Your task to perform on an android device: check battery use Image 0: 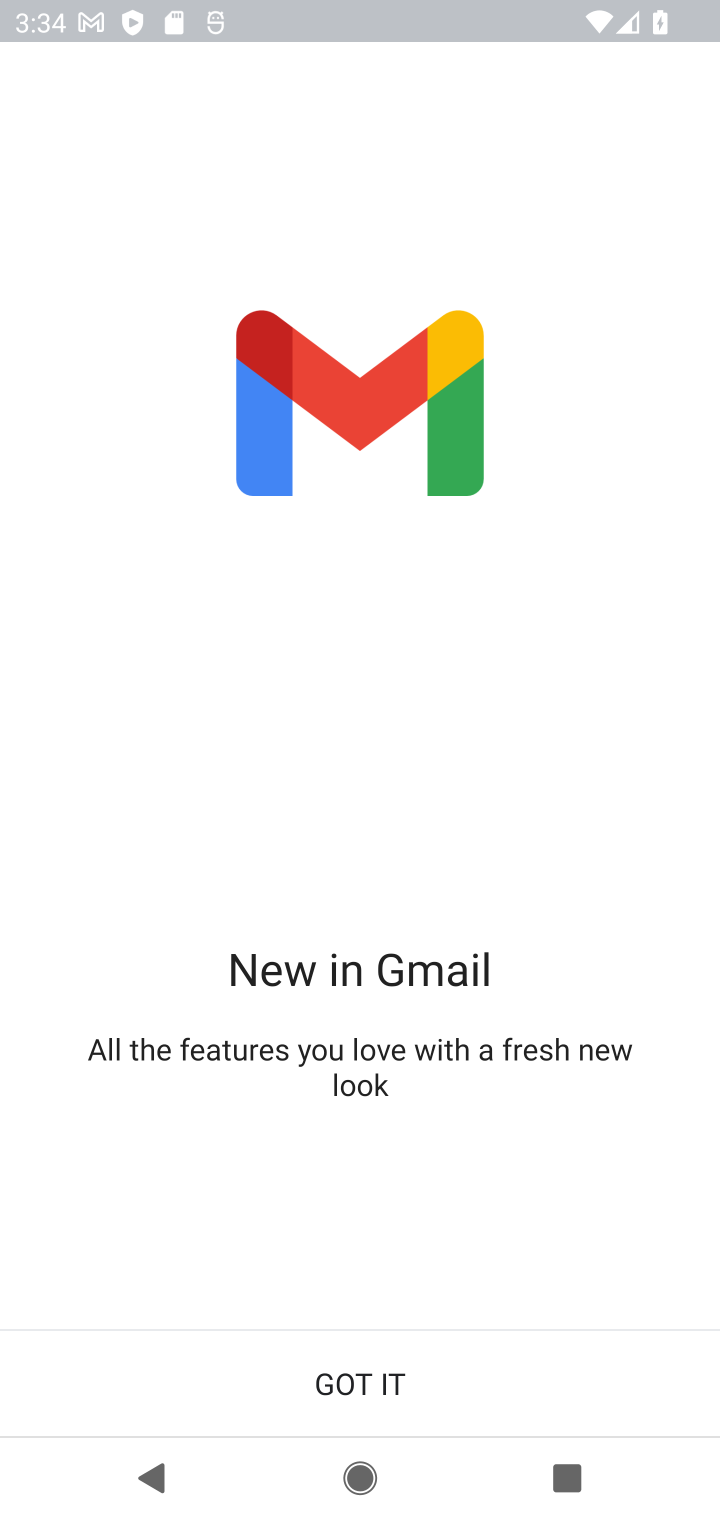
Step 0: press home button
Your task to perform on an android device: check battery use Image 1: 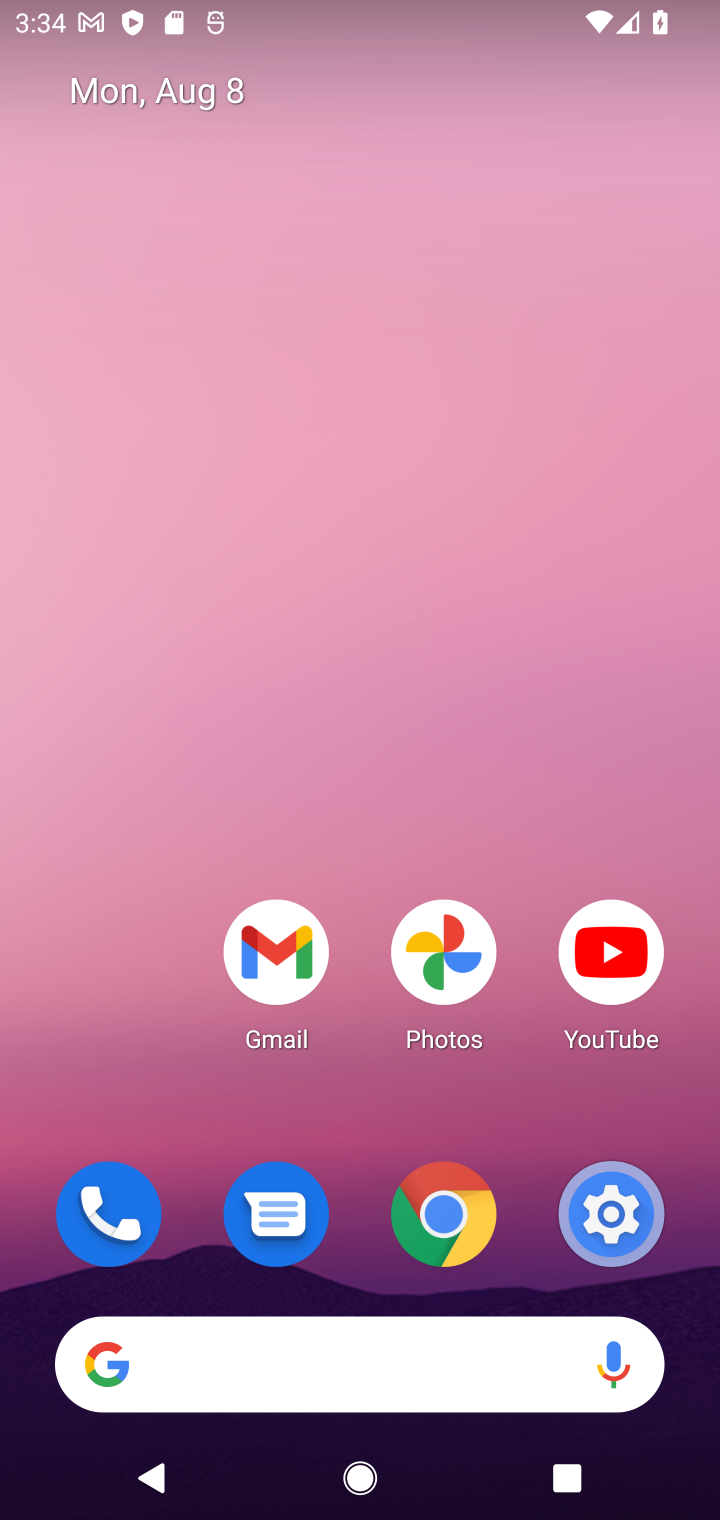
Step 1: drag from (344, 1164) to (337, 40)
Your task to perform on an android device: check battery use Image 2: 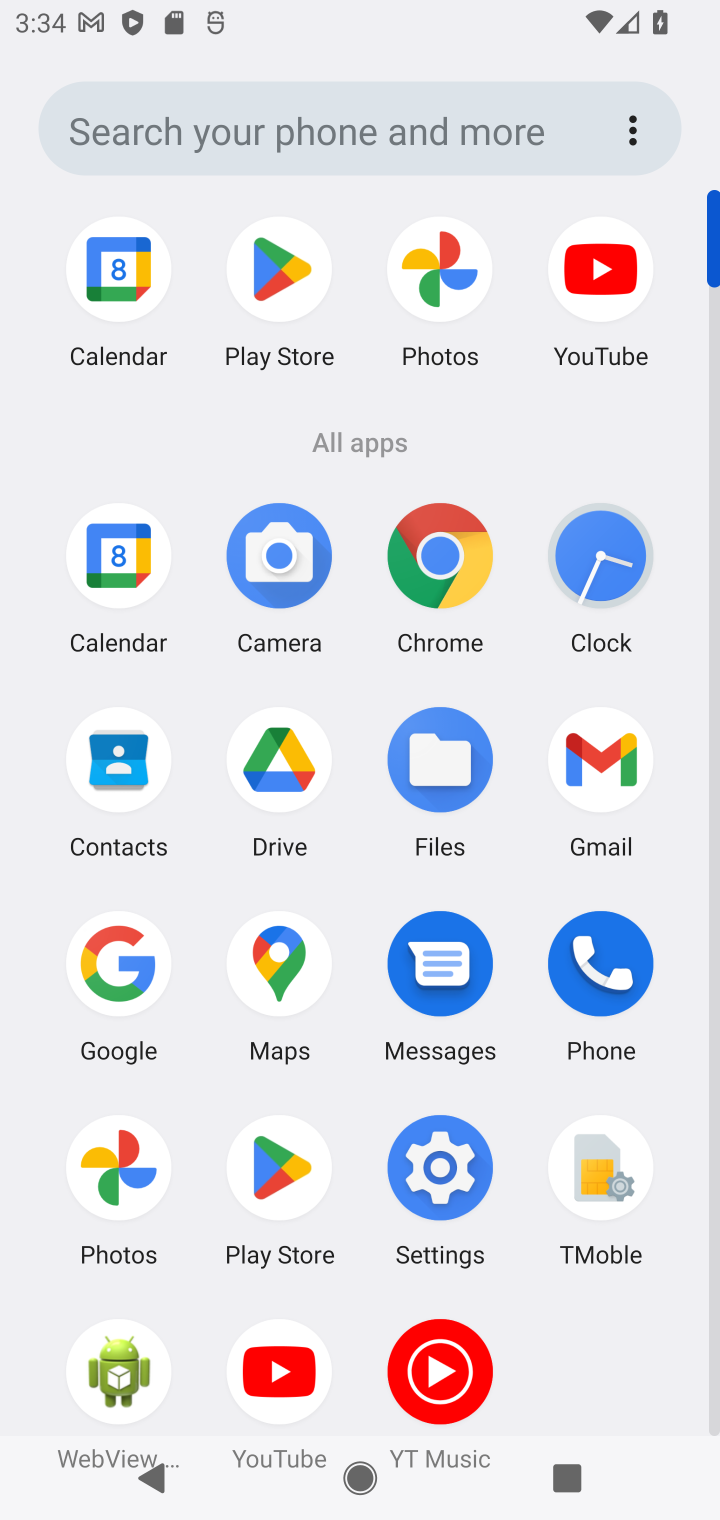
Step 2: click (459, 1161)
Your task to perform on an android device: check battery use Image 3: 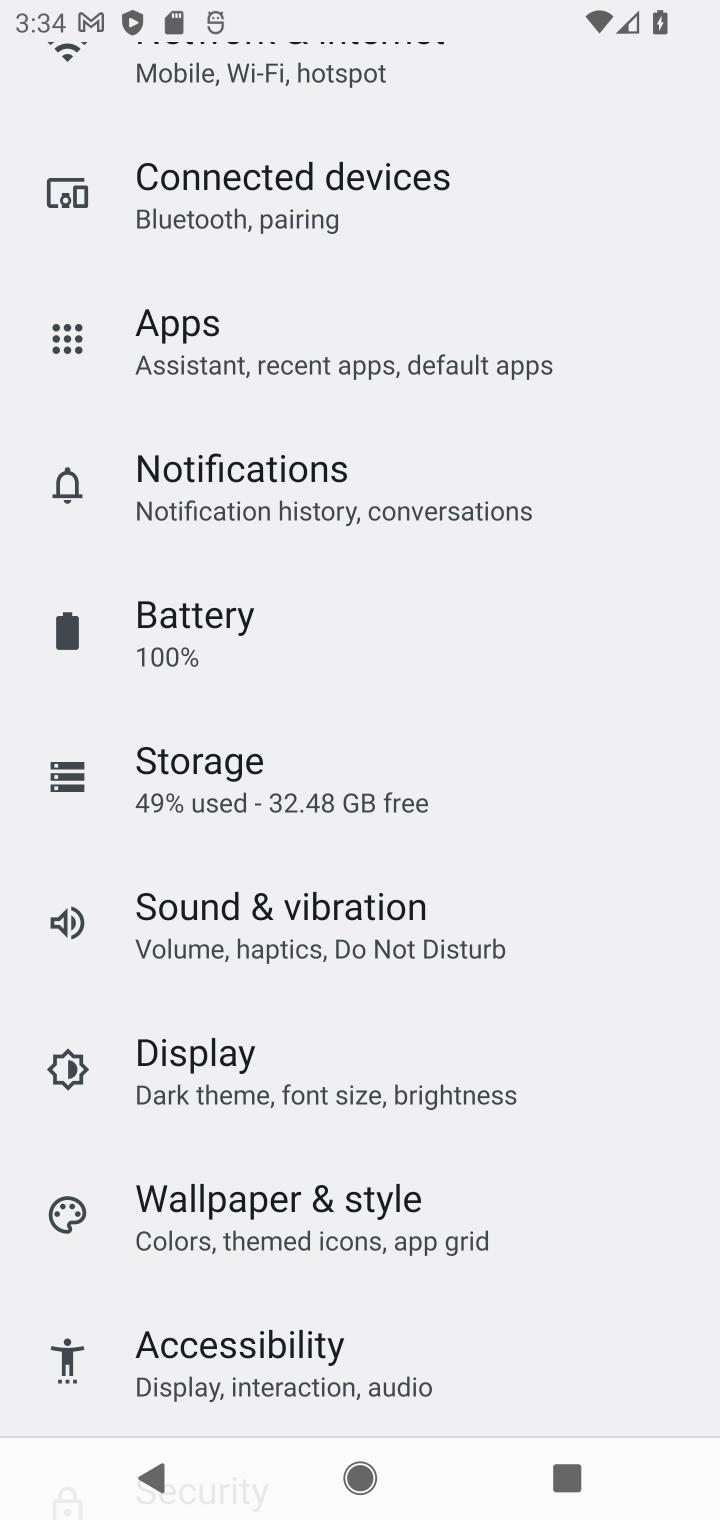
Step 3: click (151, 631)
Your task to perform on an android device: check battery use Image 4: 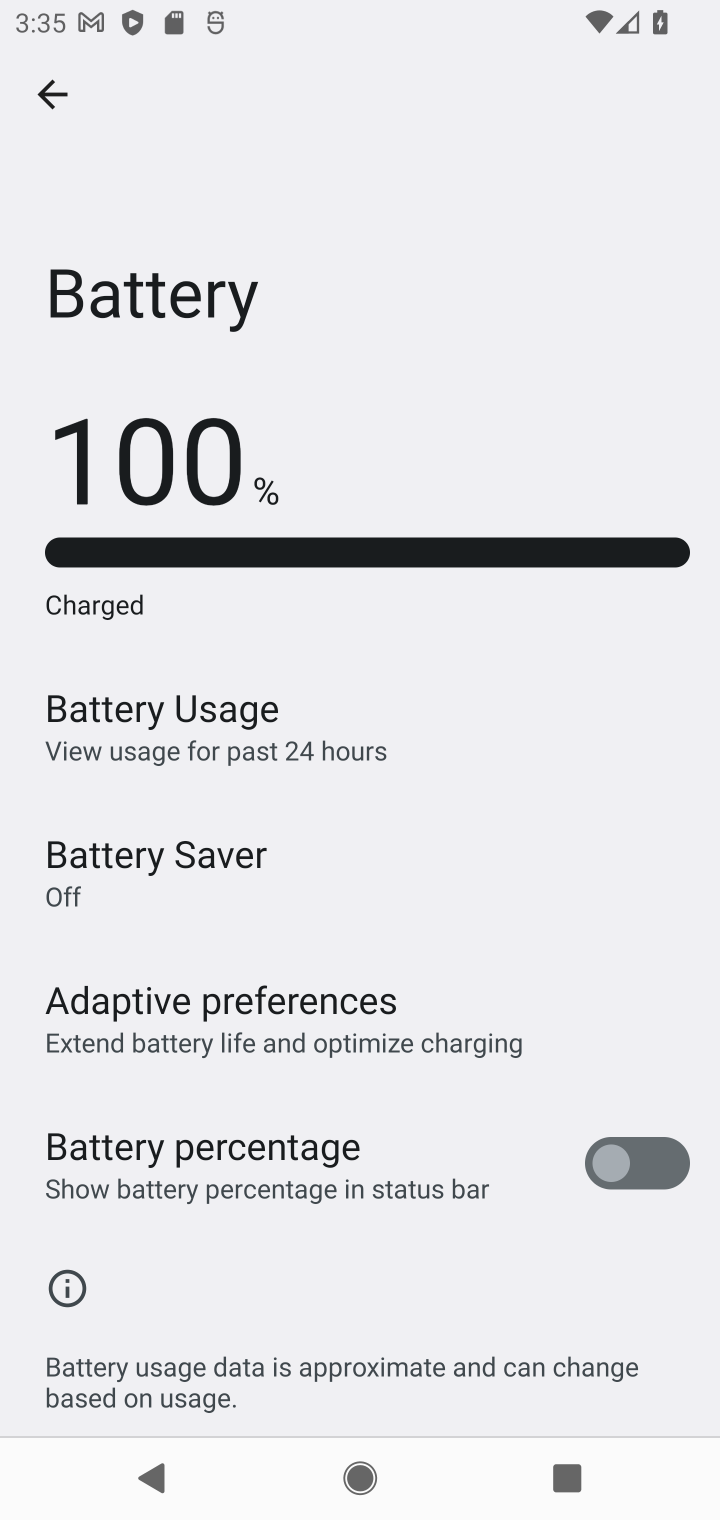
Step 4: click (157, 705)
Your task to perform on an android device: check battery use Image 5: 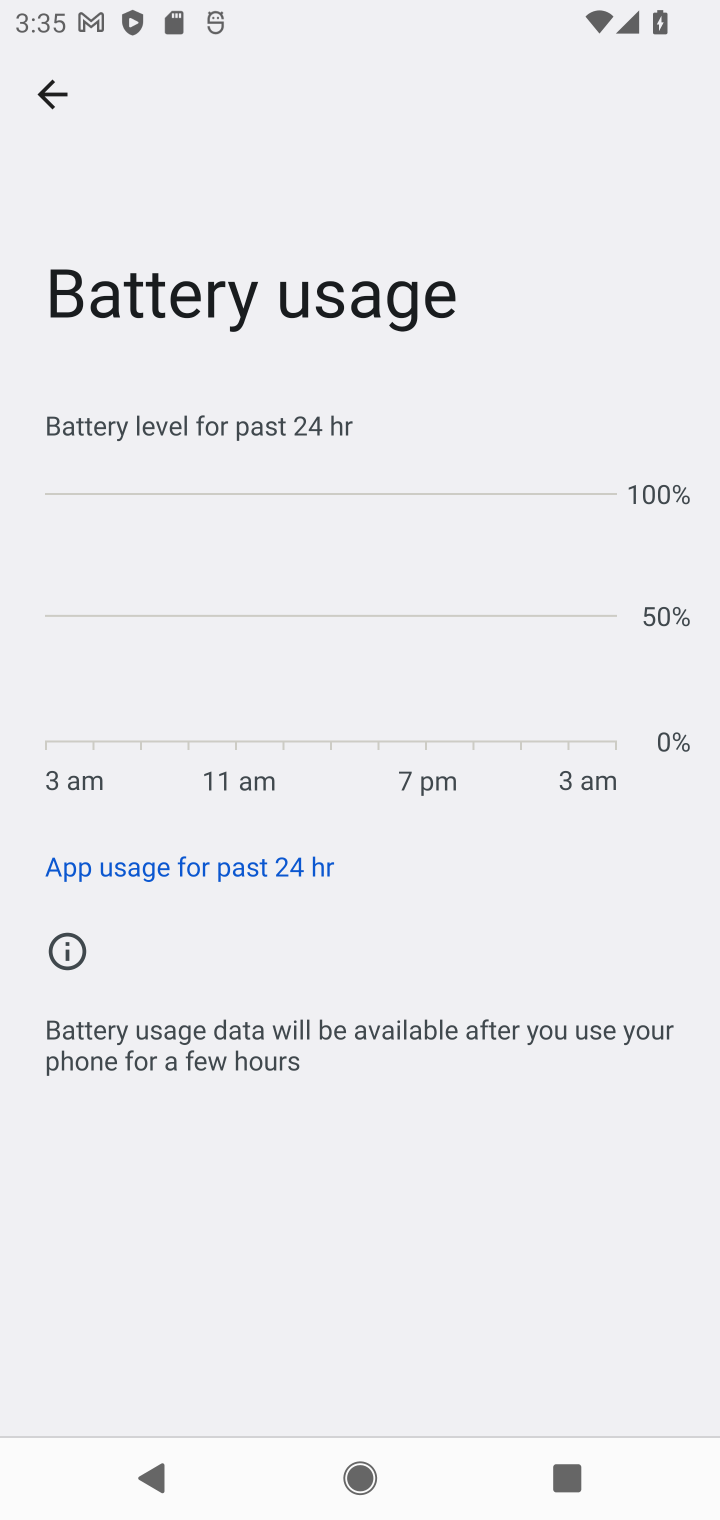
Step 5: task complete